Your task to perform on an android device: turn off location Image 0: 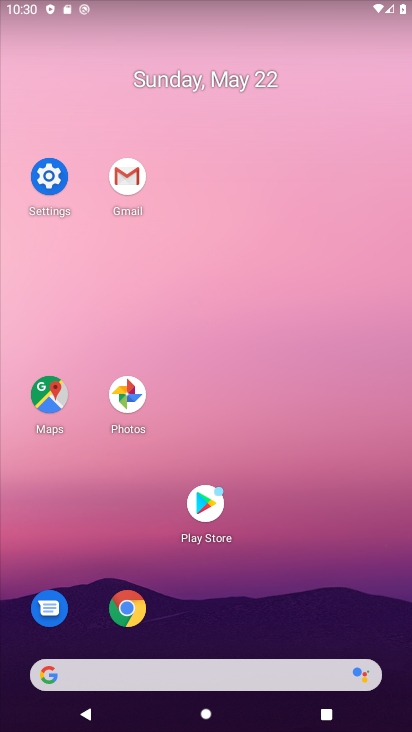
Step 0: click (55, 180)
Your task to perform on an android device: turn off location Image 1: 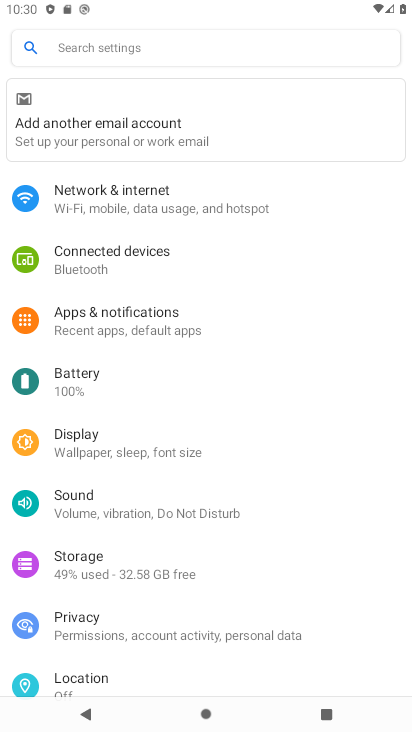
Step 1: click (223, 674)
Your task to perform on an android device: turn off location Image 2: 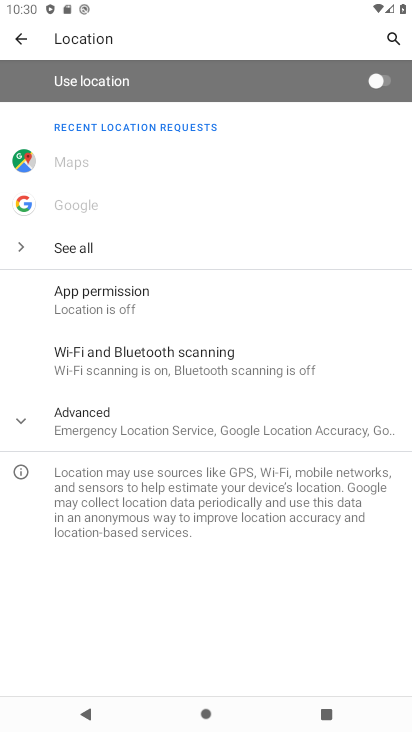
Step 2: task complete